Your task to perform on an android device: Go to ESPN.com Image 0: 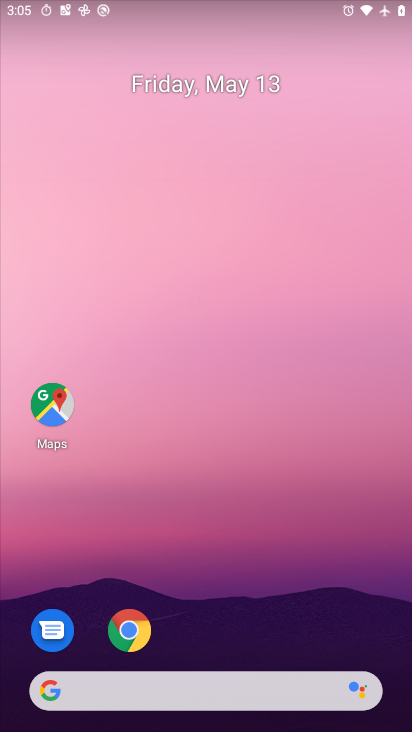
Step 0: drag from (282, 619) to (307, 265)
Your task to perform on an android device: Go to ESPN.com Image 1: 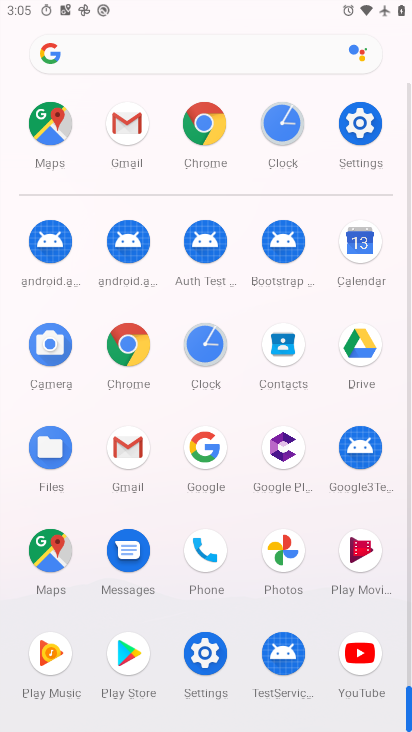
Step 1: click (128, 373)
Your task to perform on an android device: Go to ESPN.com Image 2: 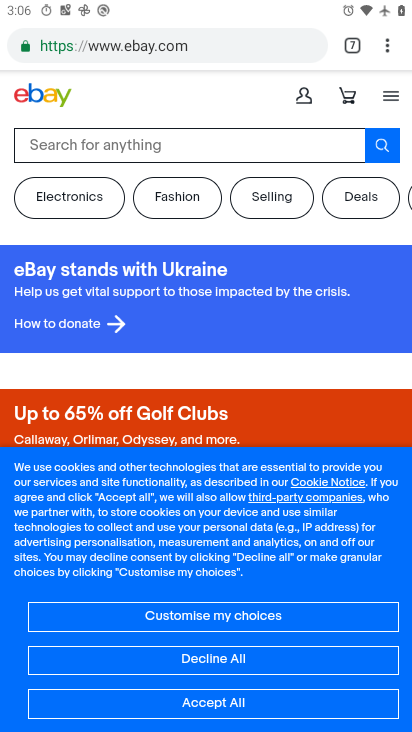
Step 2: click (351, 42)
Your task to perform on an android device: Go to ESPN.com Image 3: 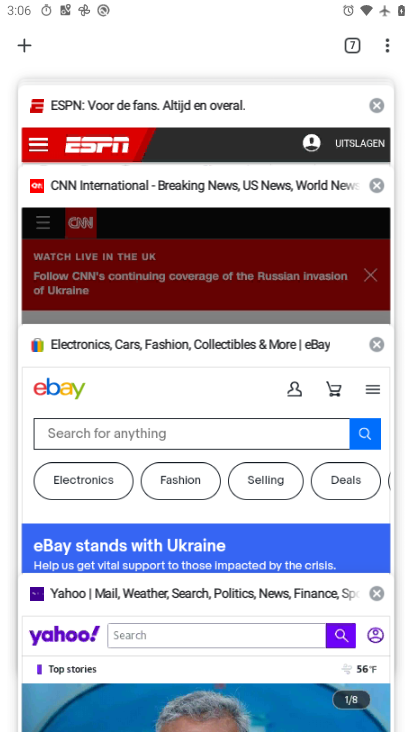
Step 3: click (176, 130)
Your task to perform on an android device: Go to ESPN.com Image 4: 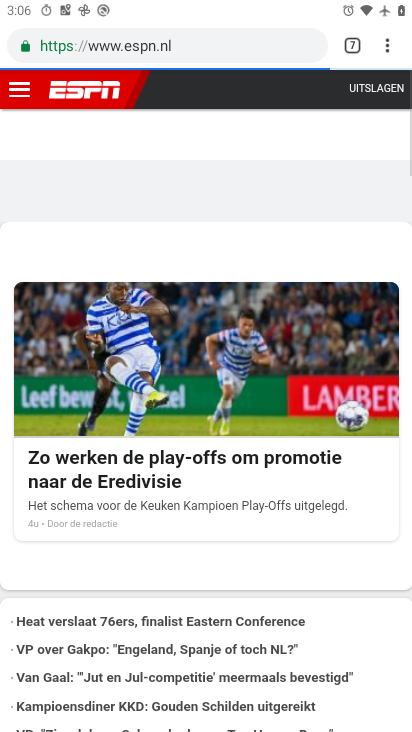
Step 4: task complete